Your task to perform on an android device: open app "Google Photos" (install if not already installed) Image 0: 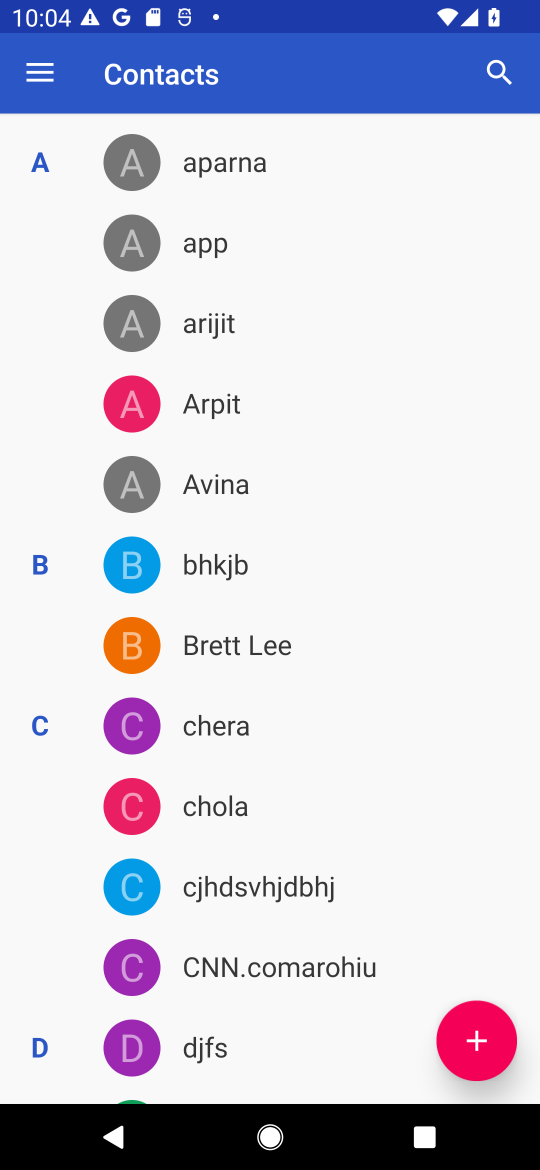
Step 0: press home button
Your task to perform on an android device: open app "Google Photos" (install if not already installed) Image 1: 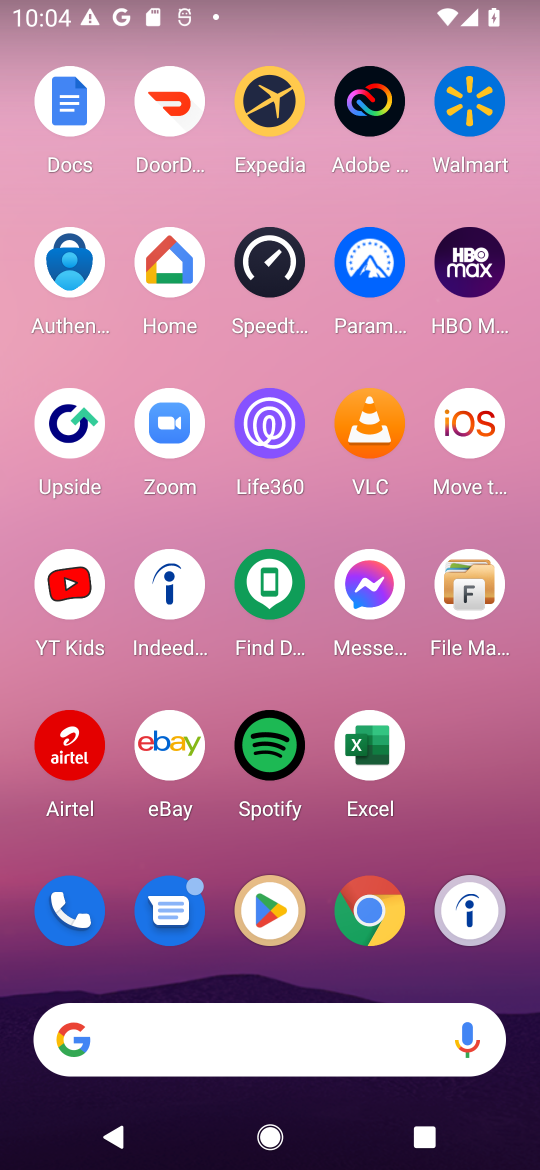
Step 1: click (261, 920)
Your task to perform on an android device: open app "Google Photos" (install if not already installed) Image 2: 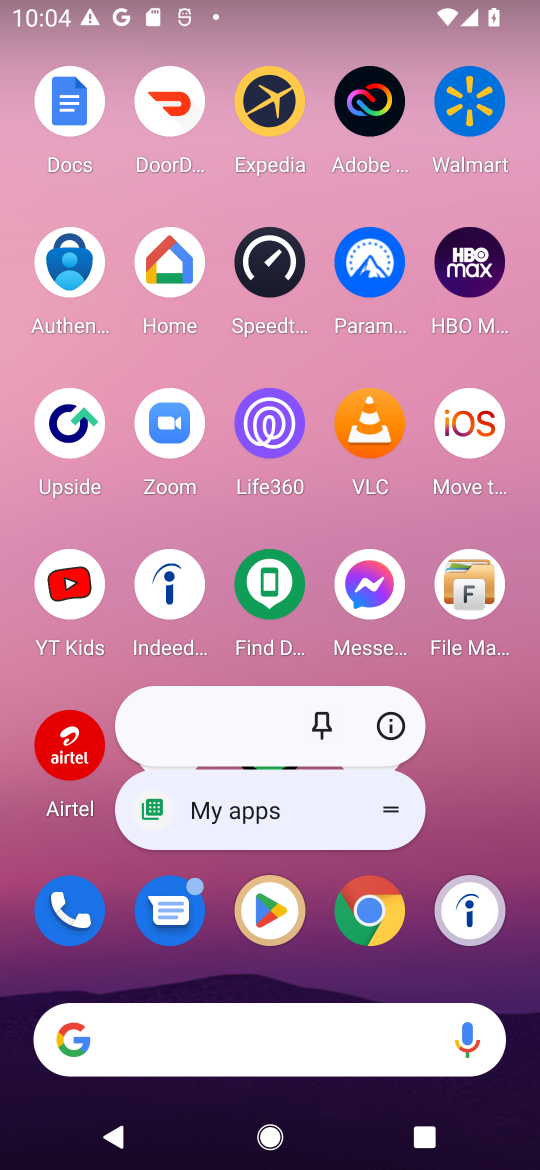
Step 2: click (263, 903)
Your task to perform on an android device: open app "Google Photos" (install if not already installed) Image 3: 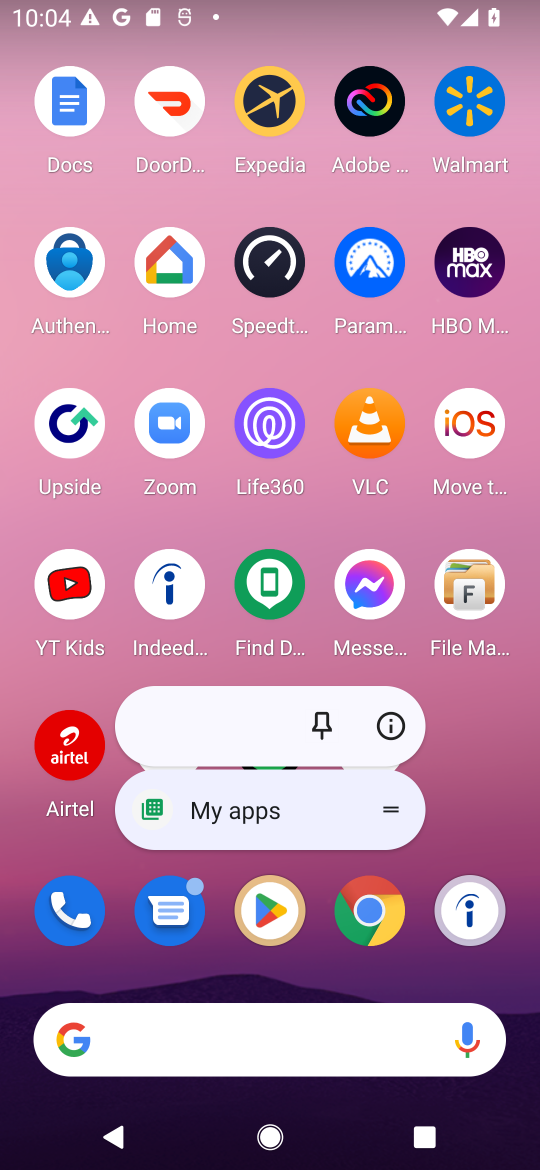
Step 3: click (274, 907)
Your task to perform on an android device: open app "Google Photos" (install if not already installed) Image 4: 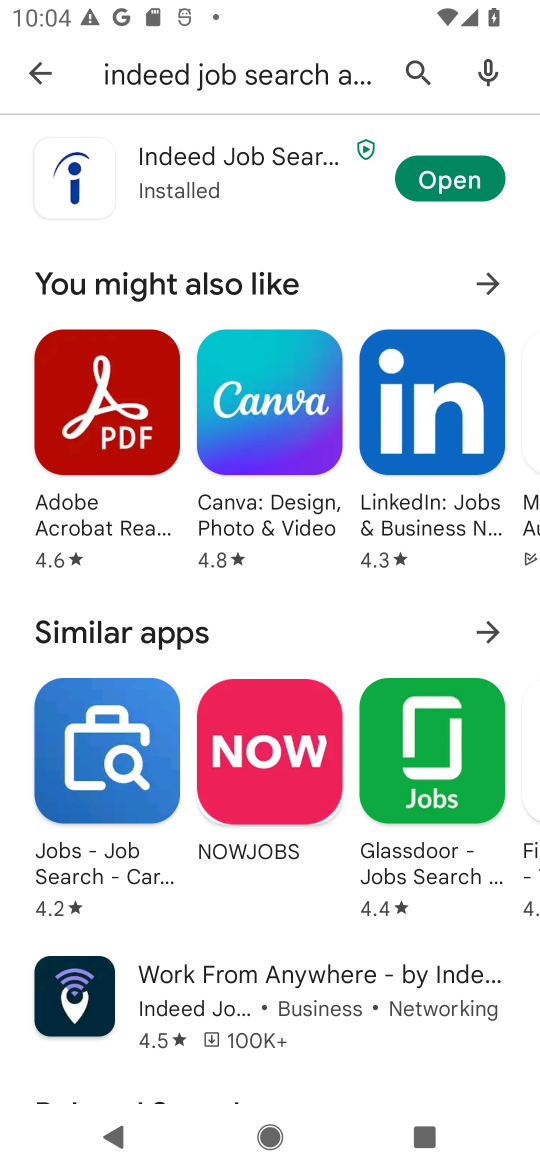
Step 4: click (406, 91)
Your task to perform on an android device: open app "Google Photos" (install if not already installed) Image 5: 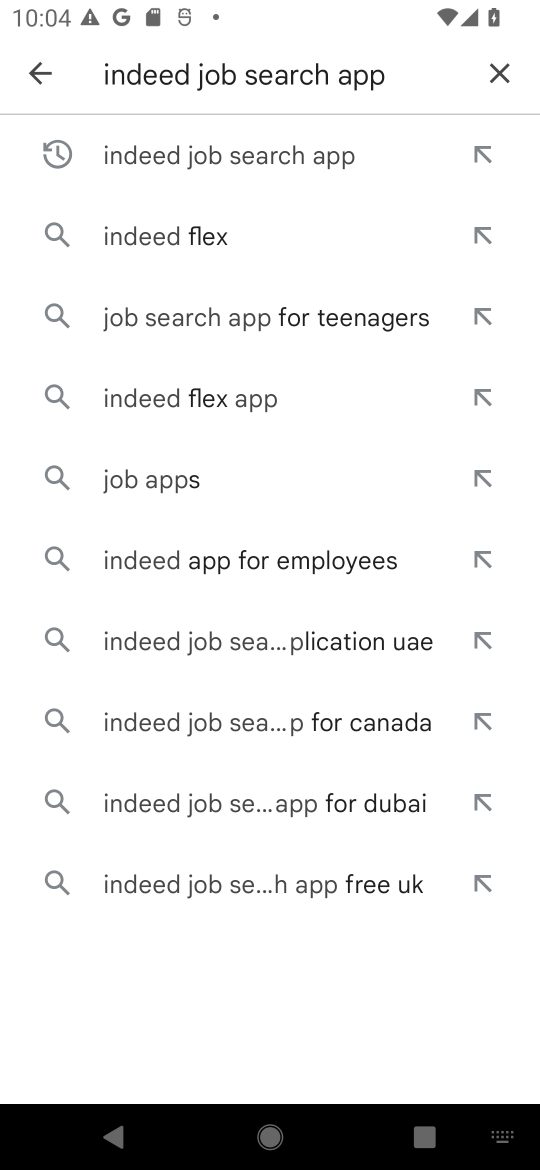
Step 5: click (494, 56)
Your task to perform on an android device: open app "Google Photos" (install if not already installed) Image 6: 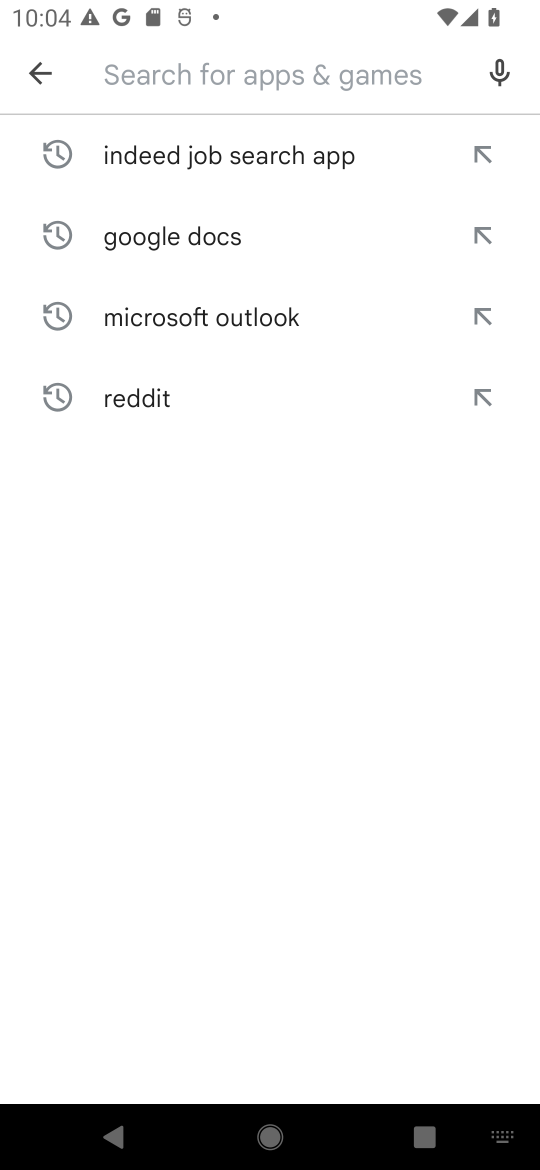
Step 6: type "Google Photos"
Your task to perform on an android device: open app "Google Photos" (install if not already installed) Image 7: 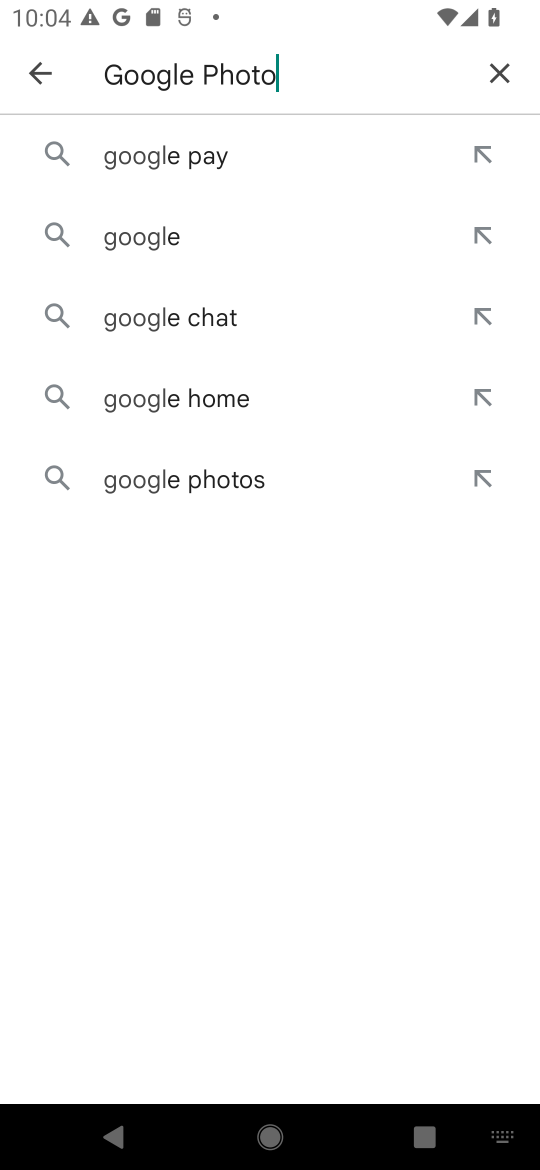
Step 7: type ""
Your task to perform on an android device: open app "Google Photos" (install if not already installed) Image 8: 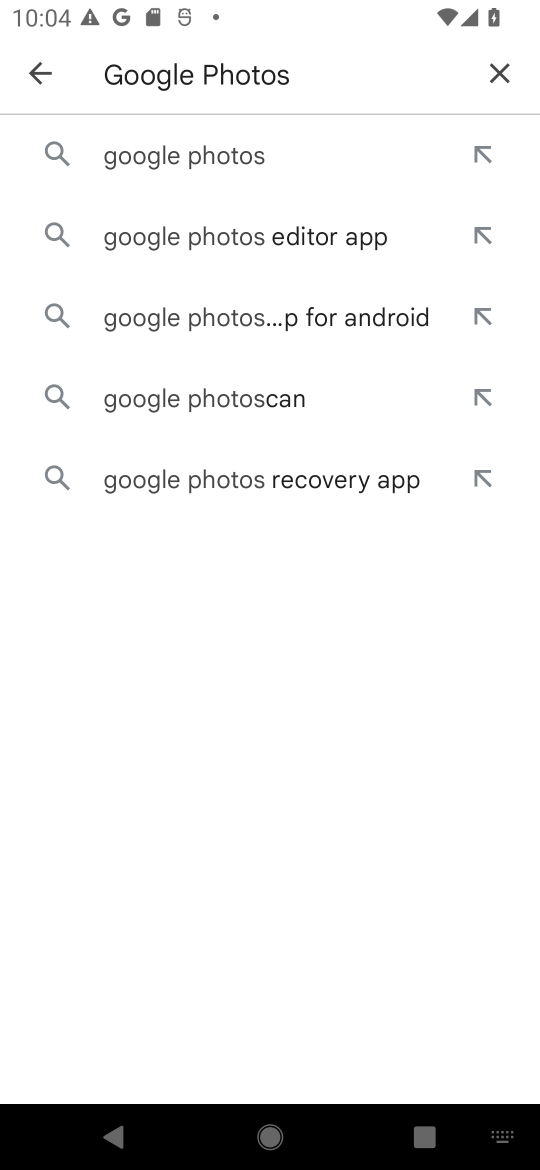
Step 8: click (208, 157)
Your task to perform on an android device: open app "Google Photos" (install if not already installed) Image 9: 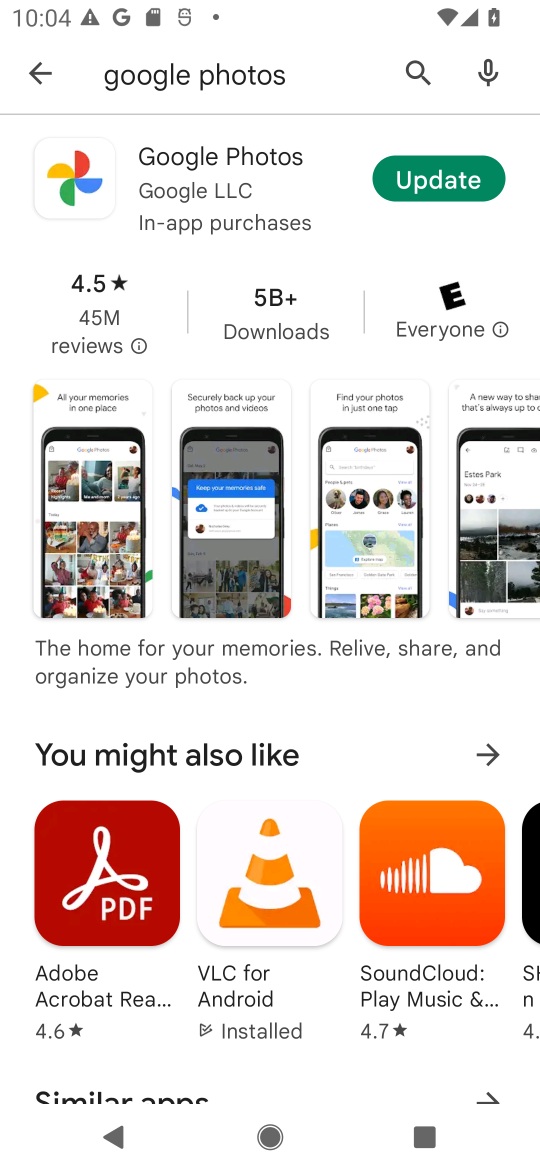
Step 9: click (192, 165)
Your task to perform on an android device: open app "Google Photos" (install if not already installed) Image 10: 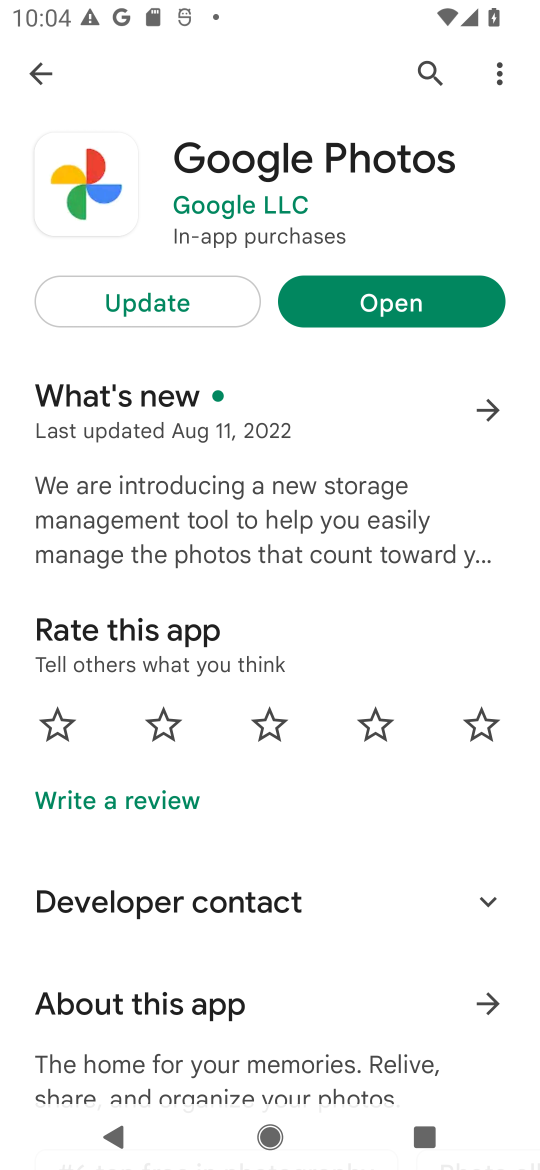
Step 10: click (395, 297)
Your task to perform on an android device: open app "Google Photos" (install if not already installed) Image 11: 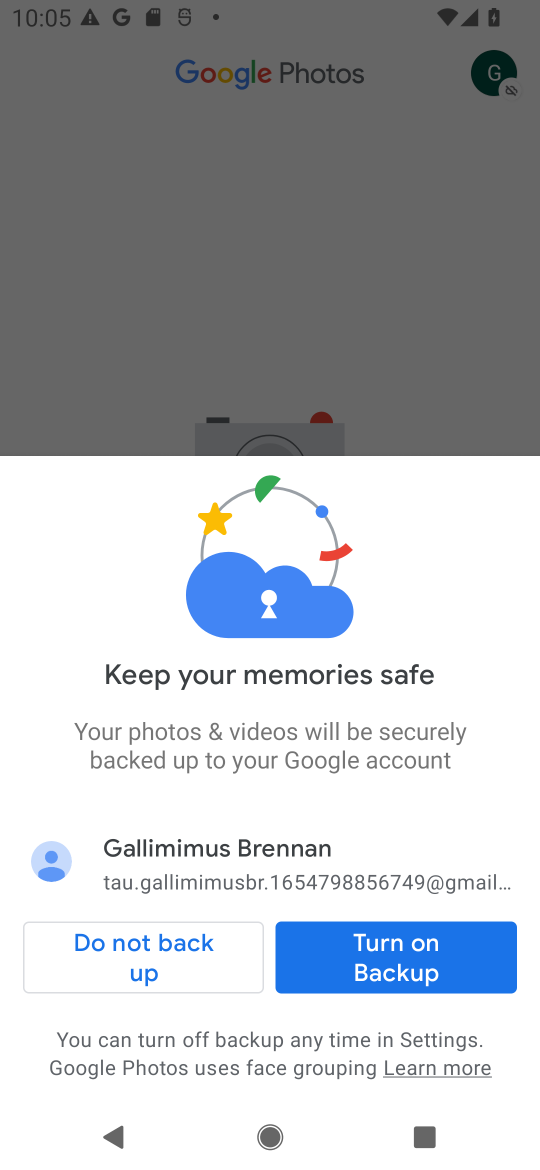
Step 11: task complete